Your task to perform on an android device: Do I have any events tomorrow? Image 0: 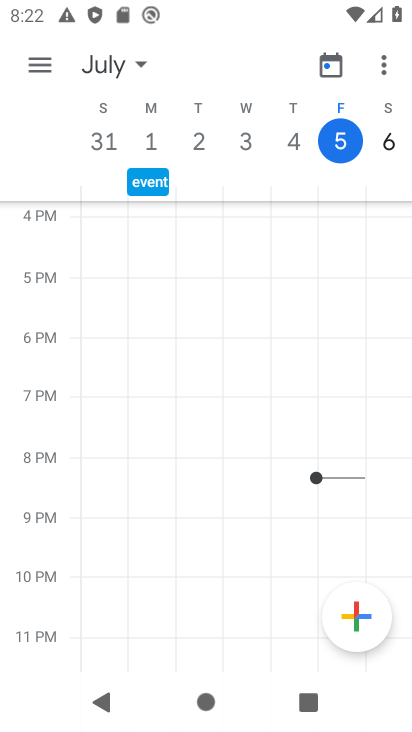
Step 0: press home button
Your task to perform on an android device: Do I have any events tomorrow? Image 1: 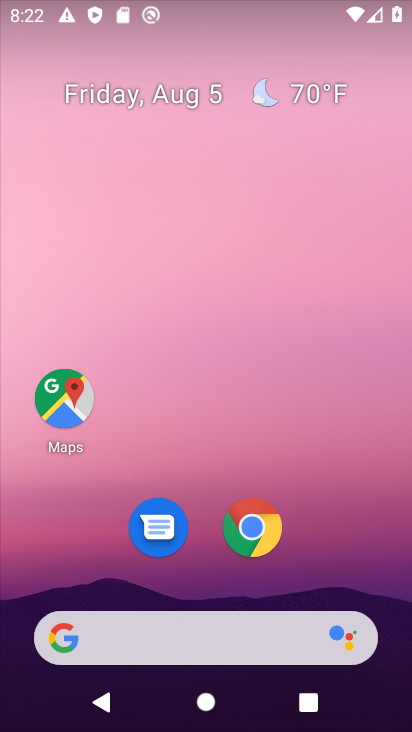
Step 1: drag from (208, 650) to (206, 327)
Your task to perform on an android device: Do I have any events tomorrow? Image 2: 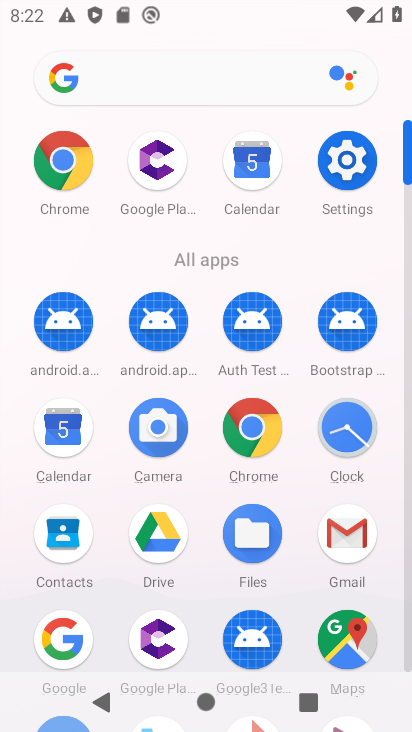
Step 2: click (71, 429)
Your task to perform on an android device: Do I have any events tomorrow? Image 3: 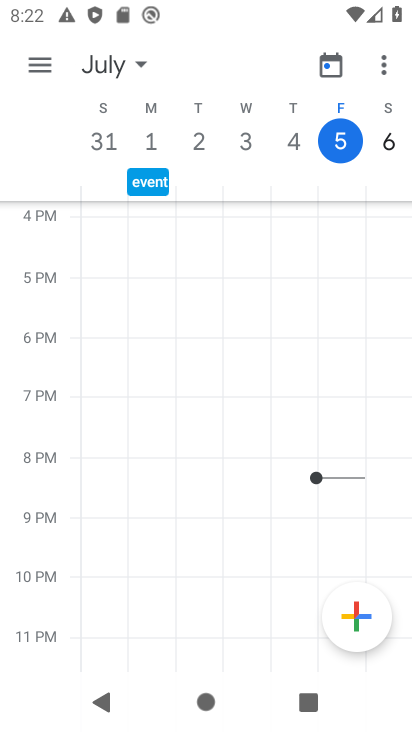
Step 3: click (392, 143)
Your task to perform on an android device: Do I have any events tomorrow? Image 4: 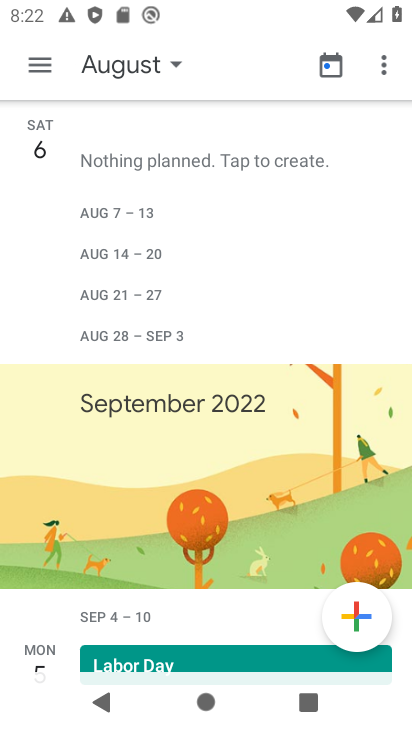
Step 4: task complete